Your task to perform on an android device: Open the calendar app, open the side menu, and click the "Day" option Image 0: 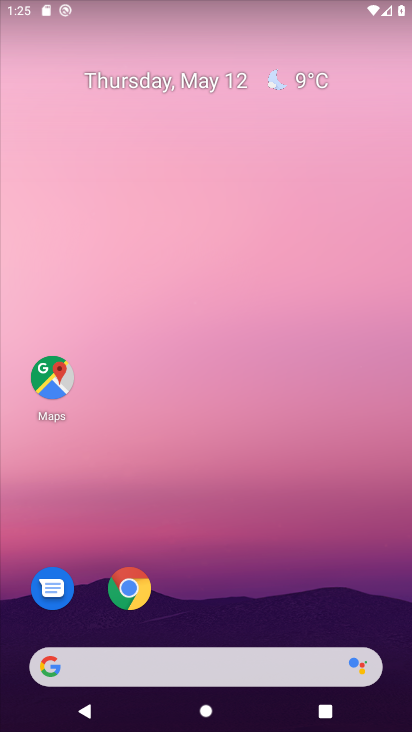
Step 0: drag from (314, 587) to (270, 33)
Your task to perform on an android device: Open the calendar app, open the side menu, and click the "Day" option Image 1: 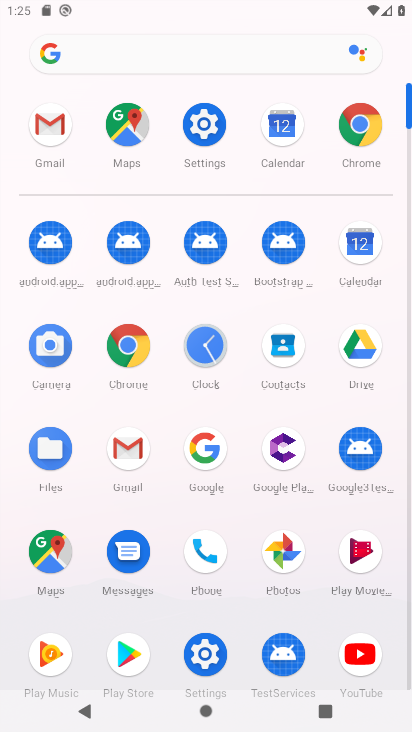
Step 1: click (357, 253)
Your task to perform on an android device: Open the calendar app, open the side menu, and click the "Day" option Image 2: 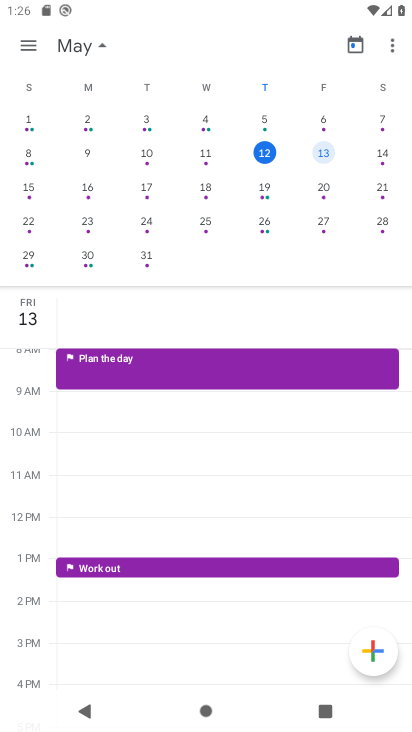
Step 2: click (21, 43)
Your task to perform on an android device: Open the calendar app, open the side menu, and click the "Day" option Image 3: 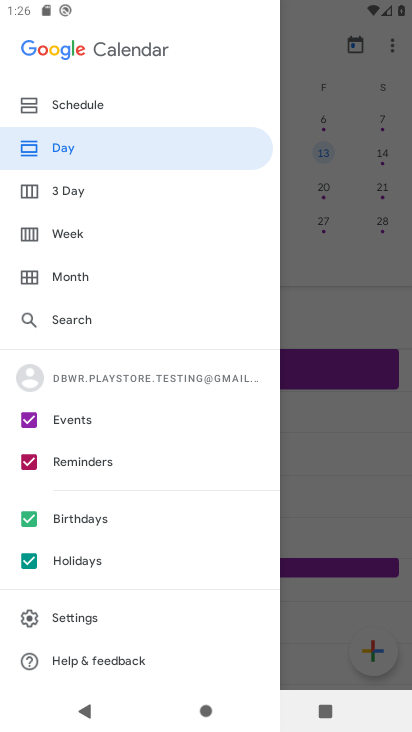
Step 3: click (73, 155)
Your task to perform on an android device: Open the calendar app, open the side menu, and click the "Day" option Image 4: 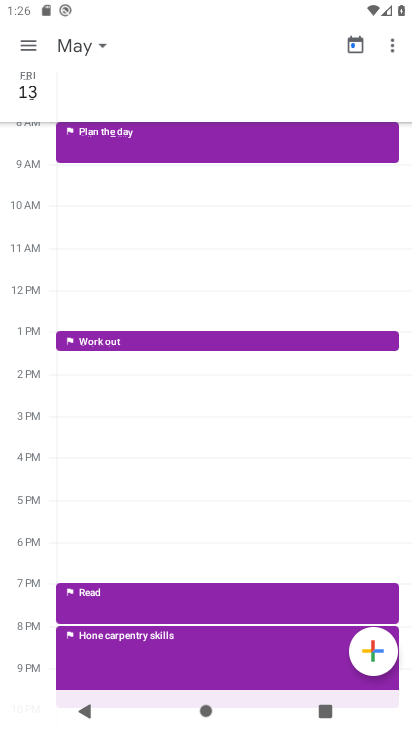
Step 4: task complete